Your task to perform on an android device: set default search engine in the chrome app Image 0: 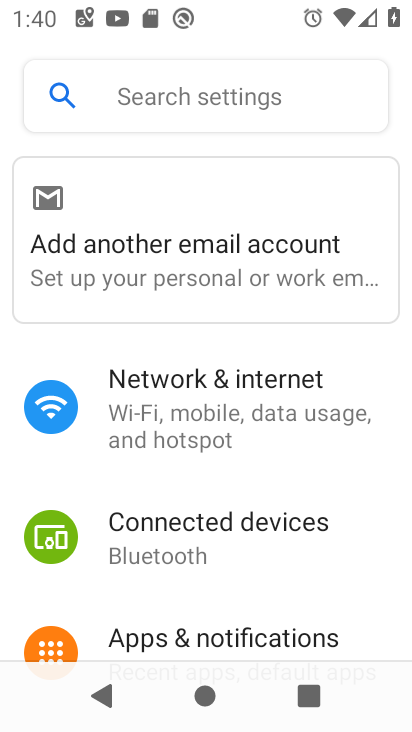
Step 0: press home button
Your task to perform on an android device: set default search engine in the chrome app Image 1: 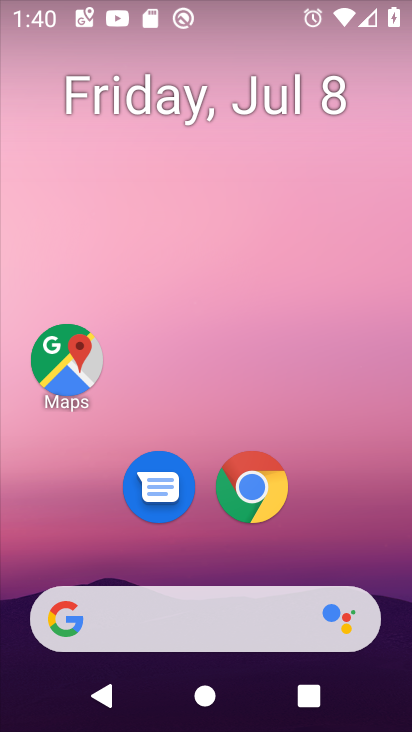
Step 1: drag from (362, 504) to (348, 160)
Your task to perform on an android device: set default search engine in the chrome app Image 2: 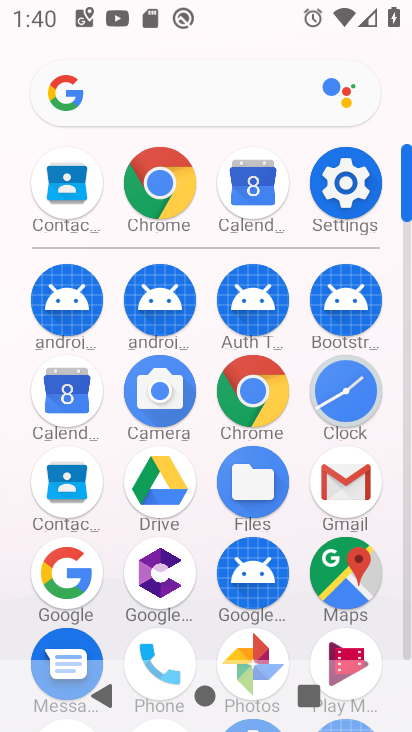
Step 2: click (269, 378)
Your task to perform on an android device: set default search engine in the chrome app Image 3: 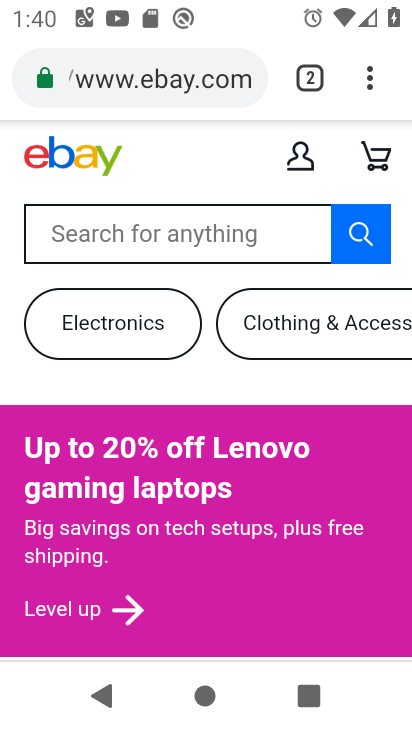
Step 3: click (368, 89)
Your task to perform on an android device: set default search engine in the chrome app Image 4: 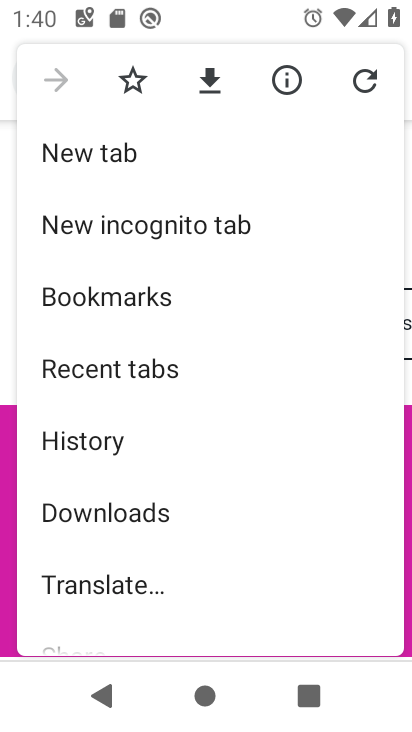
Step 4: drag from (299, 509) to (299, 425)
Your task to perform on an android device: set default search engine in the chrome app Image 5: 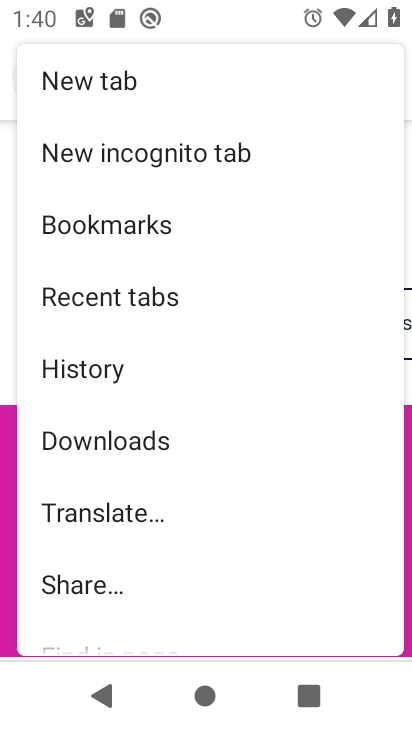
Step 5: drag from (301, 493) to (296, 384)
Your task to perform on an android device: set default search engine in the chrome app Image 6: 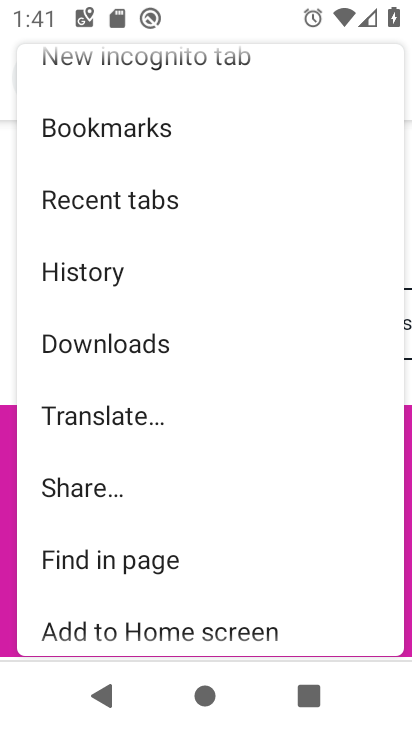
Step 6: drag from (299, 527) to (299, 425)
Your task to perform on an android device: set default search engine in the chrome app Image 7: 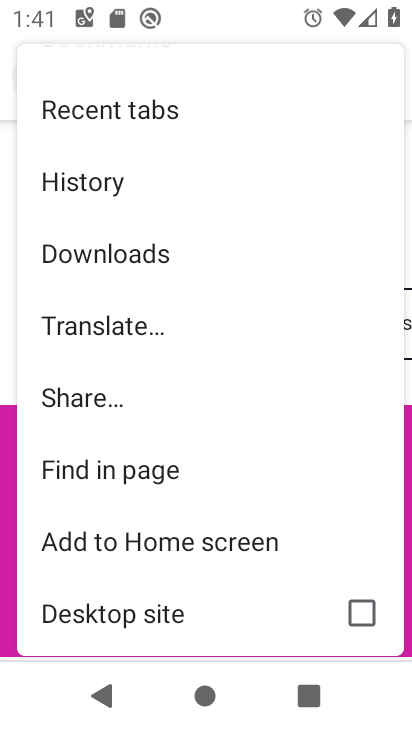
Step 7: drag from (300, 559) to (298, 446)
Your task to perform on an android device: set default search engine in the chrome app Image 8: 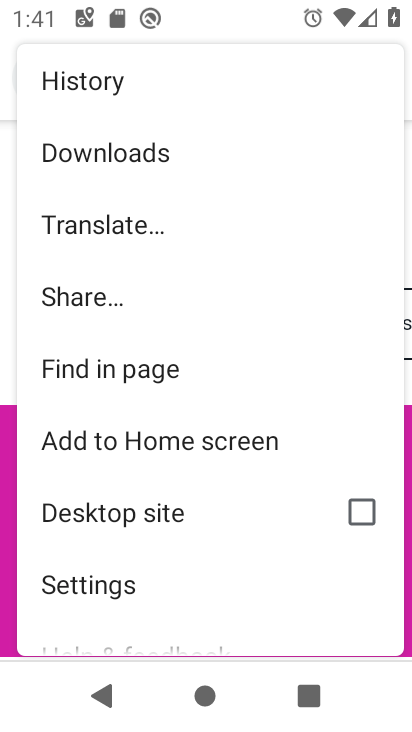
Step 8: click (265, 600)
Your task to perform on an android device: set default search engine in the chrome app Image 9: 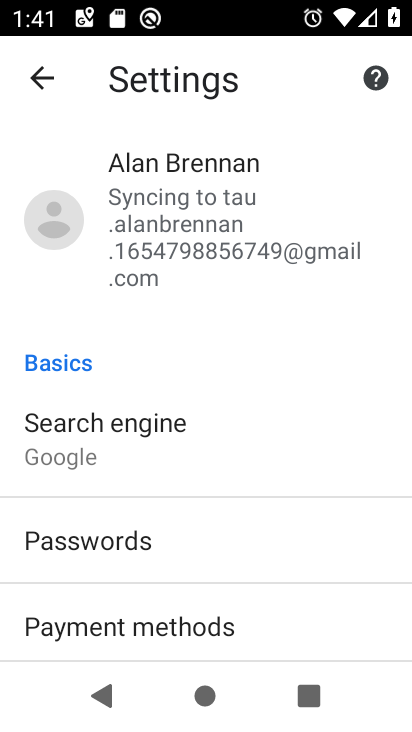
Step 9: click (216, 462)
Your task to perform on an android device: set default search engine in the chrome app Image 10: 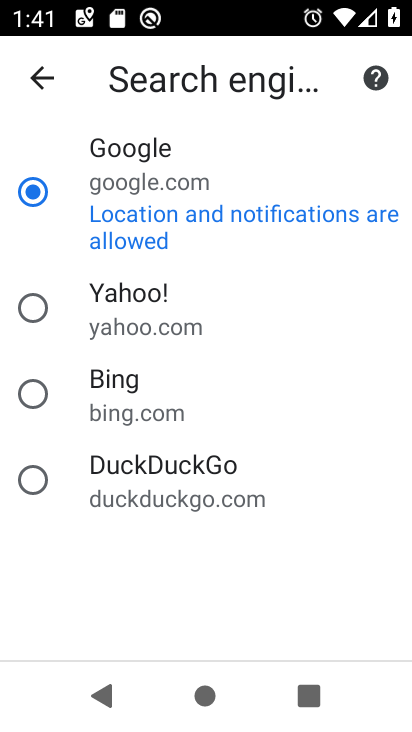
Step 10: click (165, 399)
Your task to perform on an android device: set default search engine in the chrome app Image 11: 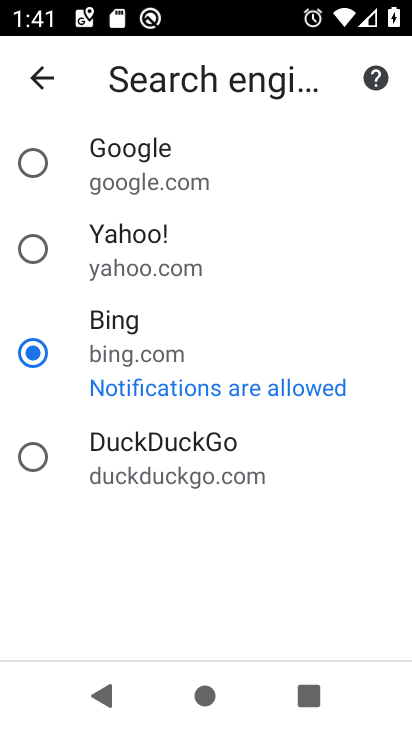
Step 11: task complete